Your task to perform on an android device: change keyboard looks Image 0: 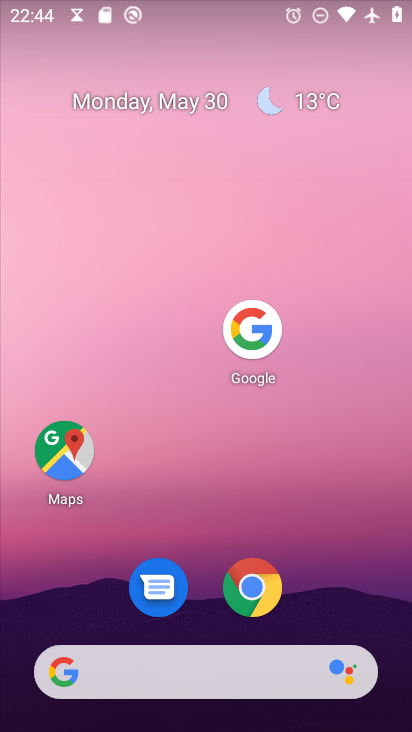
Step 0: drag from (206, 680) to (349, 3)
Your task to perform on an android device: change keyboard looks Image 1: 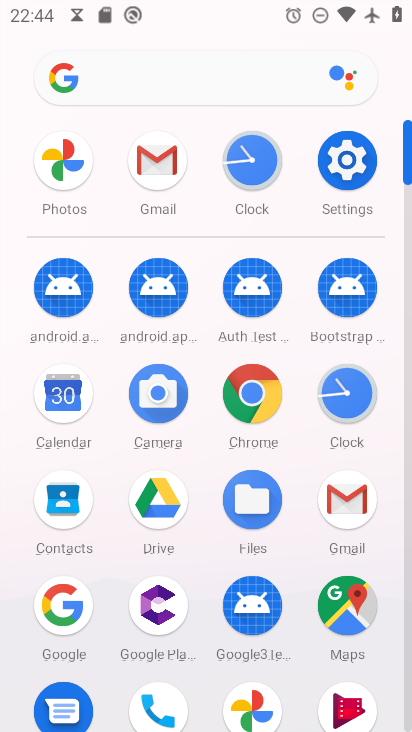
Step 1: click (358, 158)
Your task to perform on an android device: change keyboard looks Image 2: 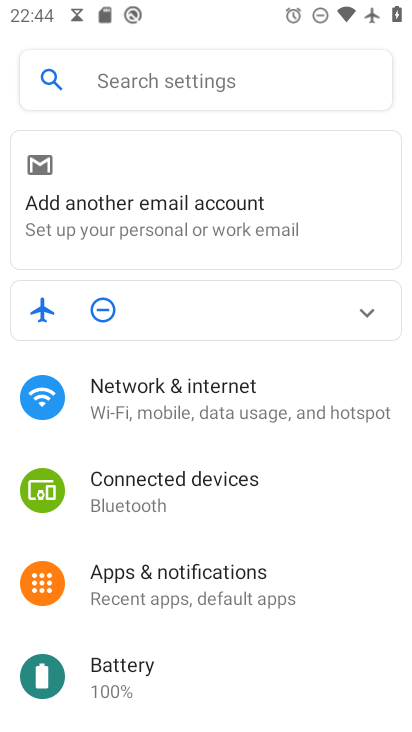
Step 2: drag from (204, 659) to (311, 284)
Your task to perform on an android device: change keyboard looks Image 3: 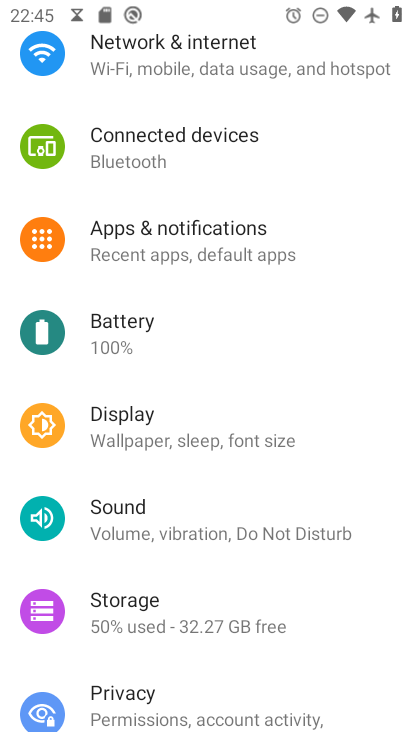
Step 3: drag from (184, 658) to (320, 206)
Your task to perform on an android device: change keyboard looks Image 4: 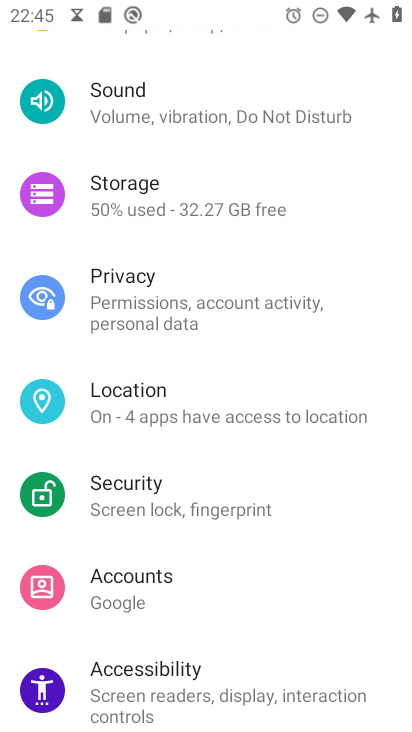
Step 4: drag from (190, 668) to (325, 293)
Your task to perform on an android device: change keyboard looks Image 5: 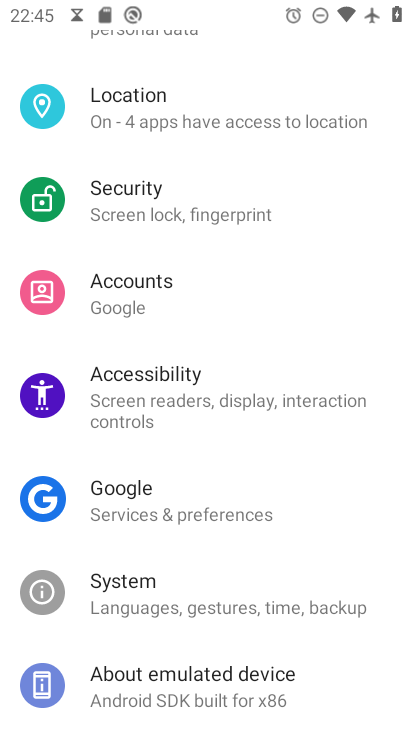
Step 5: click (181, 605)
Your task to perform on an android device: change keyboard looks Image 6: 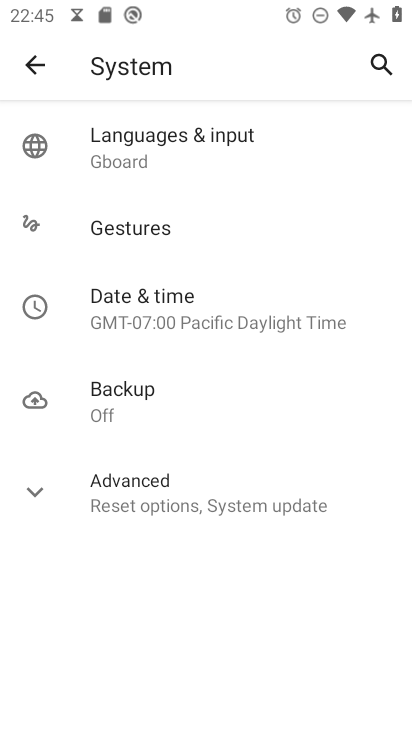
Step 6: click (162, 151)
Your task to perform on an android device: change keyboard looks Image 7: 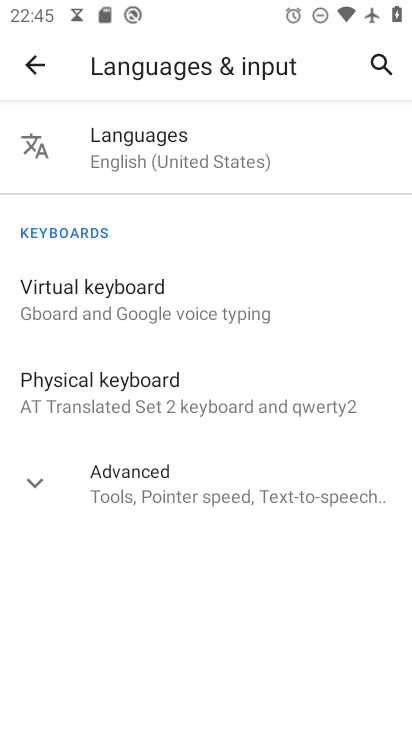
Step 7: click (114, 312)
Your task to perform on an android device: change keyboard looks Image 8: 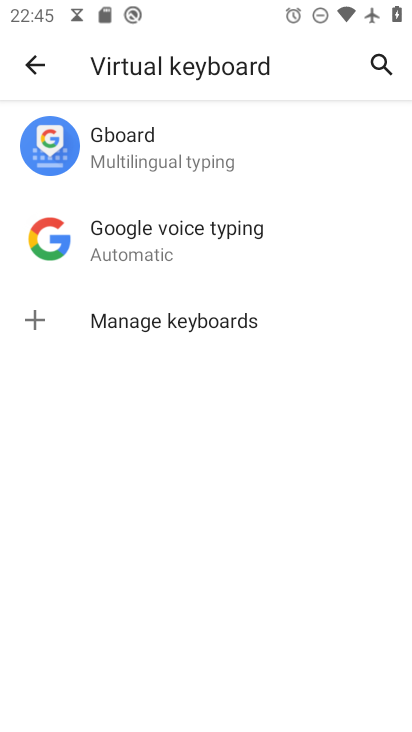
Step 8: click (114, 149)
Your task to perform on an android device: change keyboard looks Image 9: 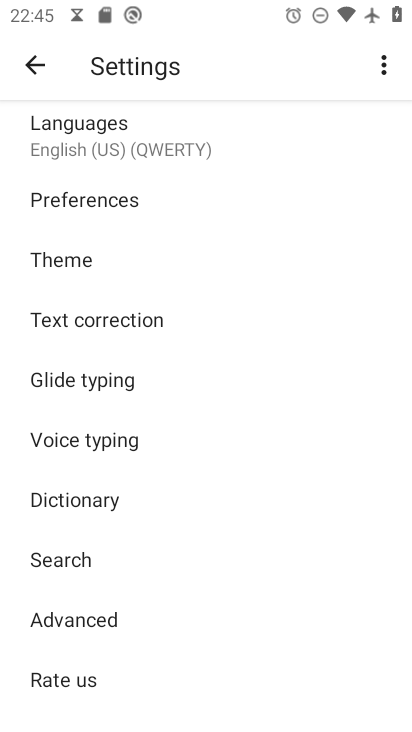
Step 9: click (54, 271)
Your task to perform on an android device: change keyboard looks Image 10: 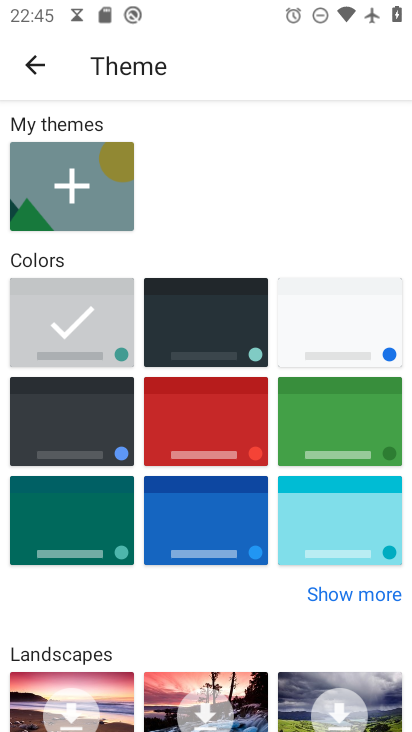
Step 10: click (210, 537)
Your task to perform on an android device: change keyboard looks Image 11: 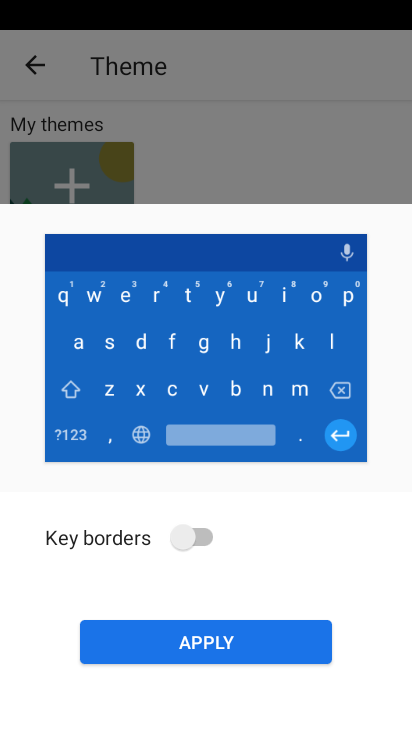
Step 11: click (216, 655)
Your task to perform on an android device: change keyboard looks Image 12: 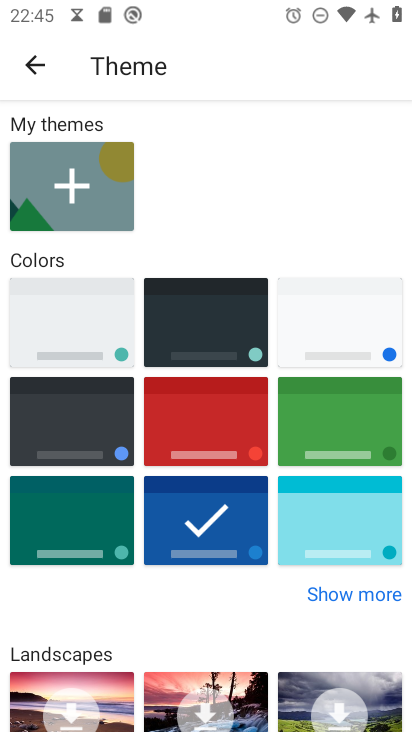
Step 12: task complete